Your task to perform on an android device: check out phone information Image 0: 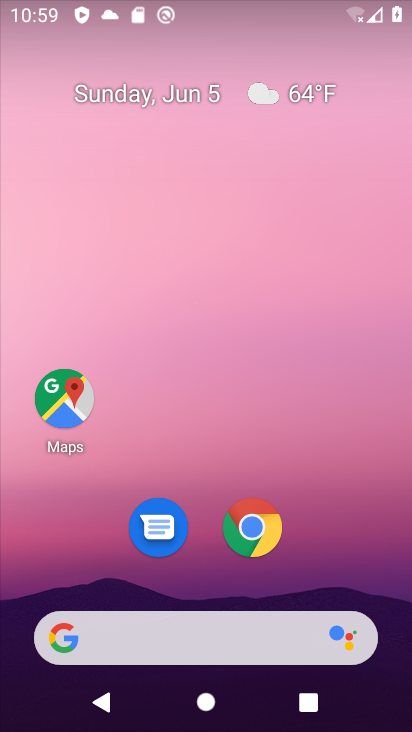
Step 0: drag from (346, 550) to (346, 16)
Your task to perform on an android device: check out phone information Image 1: 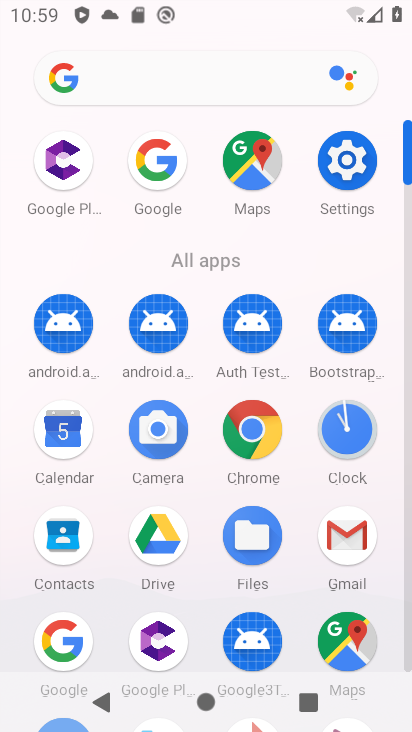
Step 1: click (369, 163)
Your task to perform on an android device: check out phone information Image 2: 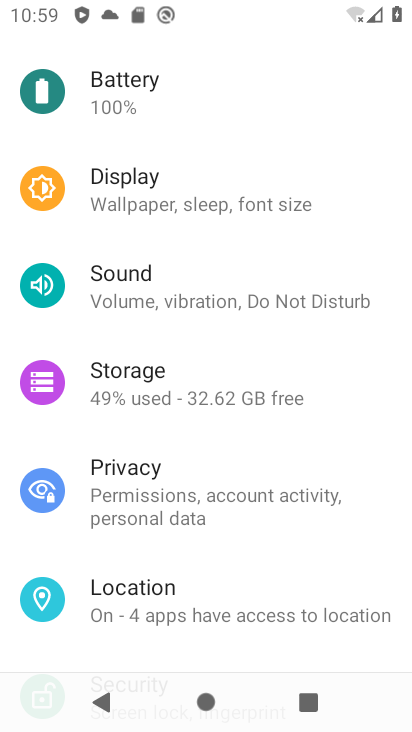
Step 2: drag from (172, 626) to (362, 138)
Your task to perform on an android device: check out phone information Image 3: 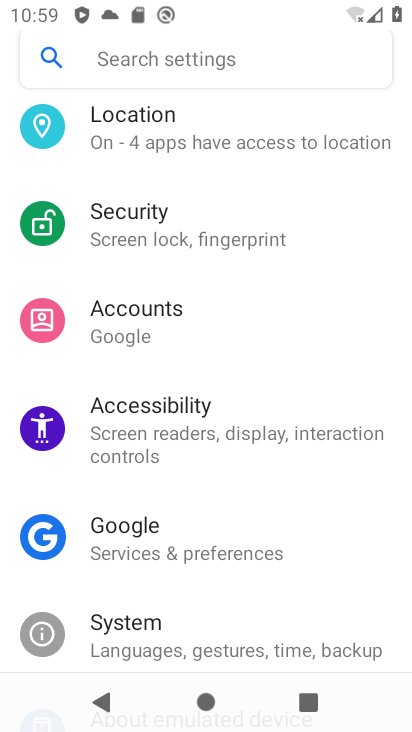
Step 3: drag from (159, 635) to (261, 255)
Your task to perform on an android device: check out phone information Image 4: 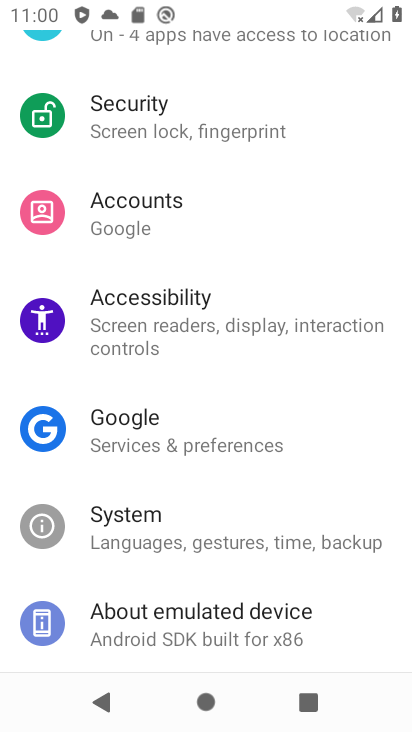
Step 4: drag from (174, 610) to (267, 209)
Your task to perform on an android device: check out phone information Image 5: 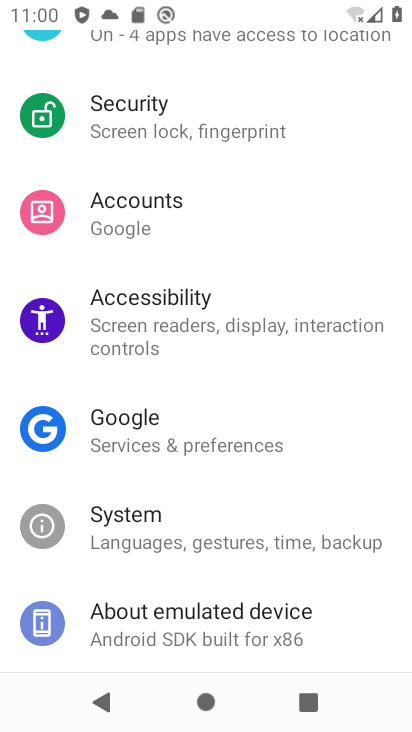
Step 5: click (165, 631)
Your task to perform on an android device: check out phone information Image 6: 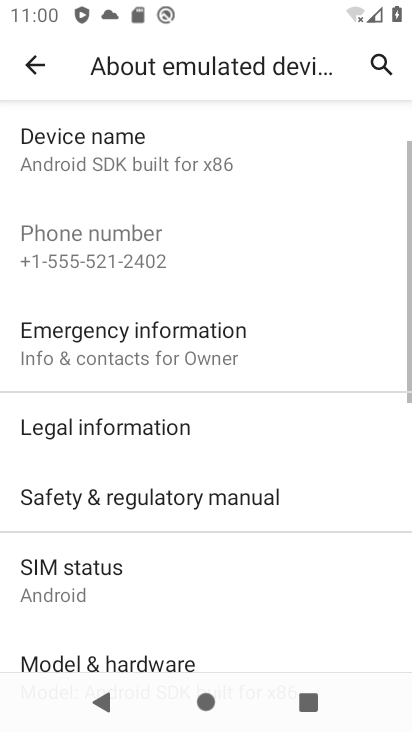
Step 6: task complete